Your task to perform on an android device: Turn on the flashlight Image 0: 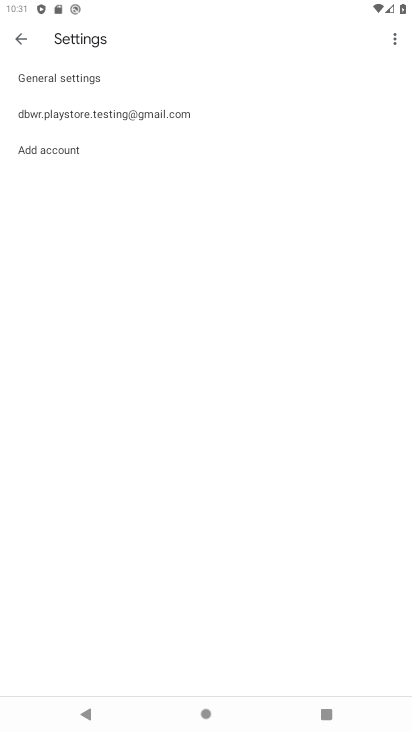
Step 0: press home button
Your task to perform on an android device: Turn on the flashlight Image 1: 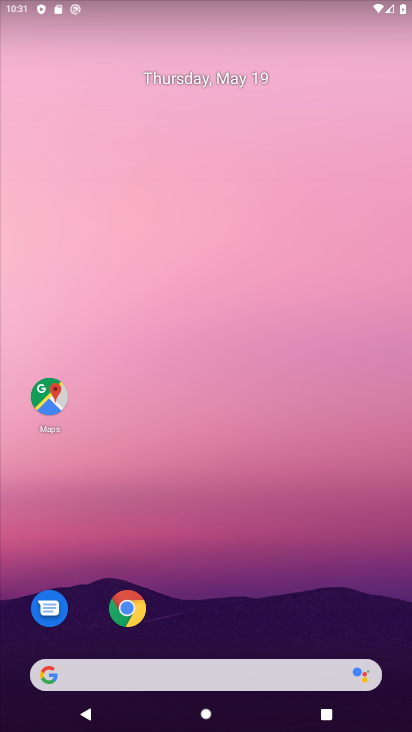
Step 1: drag from (397, 702) to (288, 149)
Your task to perform on an android device: Turn on the flashlight Image 2: 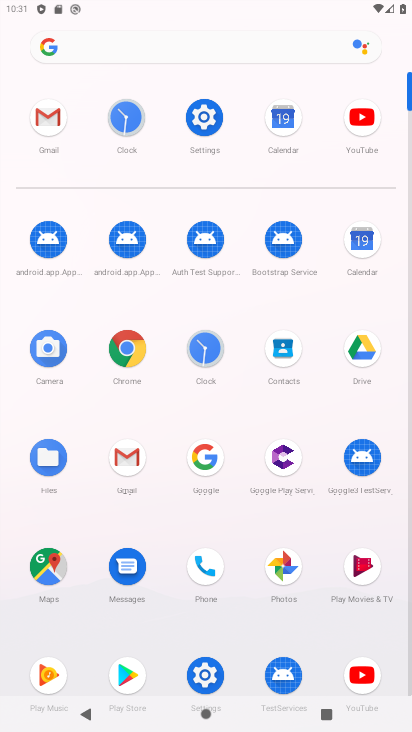
Step 2: click (201, 126)
Your task to perform on an android device: Turn on the flashlight Image 3: 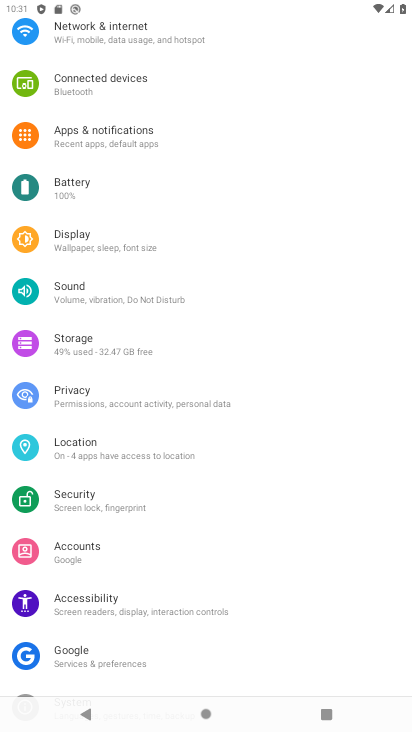
Step 3: click (75, 237)
Your task to perform on an android device: Turn on the flashlight Image 4: 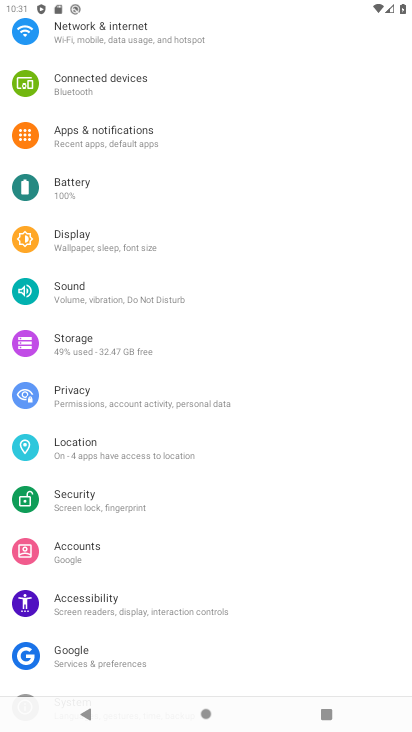
Step 4: task complete